Your task to perform on an android device: What's the weather today? Image 0: 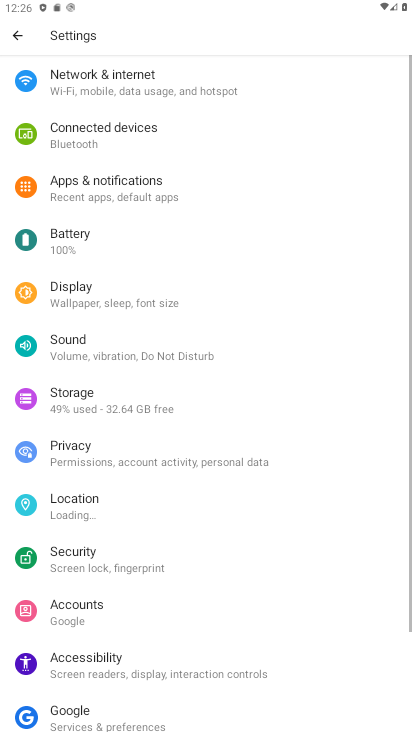
Step 0: press home button
Your task to perform on an android device: What's the weather today? Image 1: 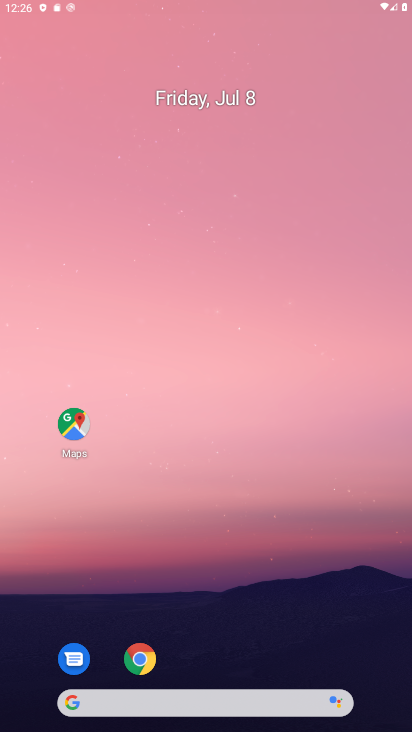
Step 1: drag from (256, 498) to (246, 173)
Your task to perform on an android device: What's the weather today? Image 2: 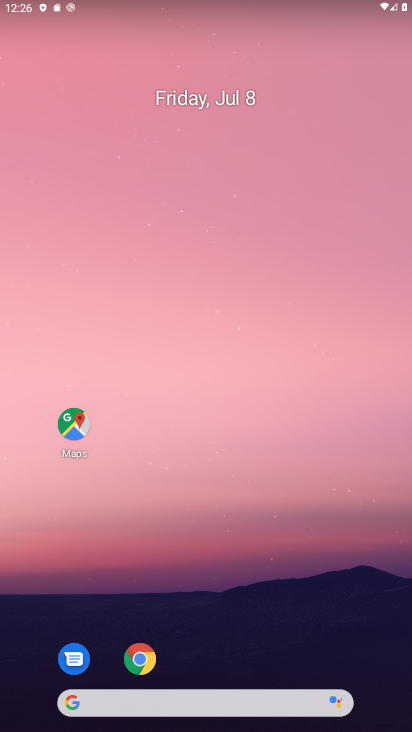
Step 2: drag from (241, 577) to (327, 212)
Your task to perform on an android device: What's the weather today? Image 3: 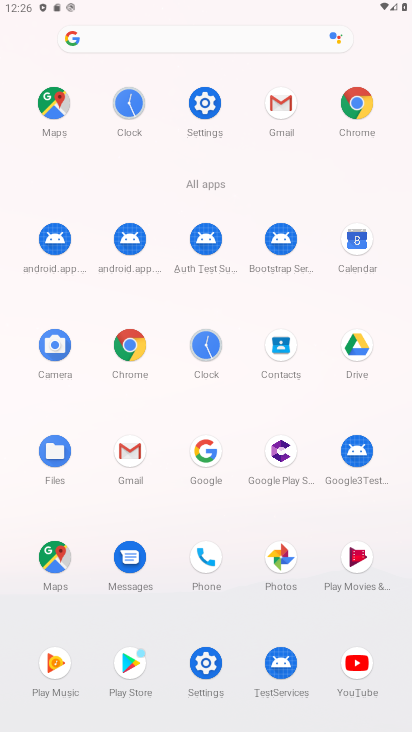
Step 3: click (375, 125)
Your task to perform on an android device: What's the weather today? Image 4: 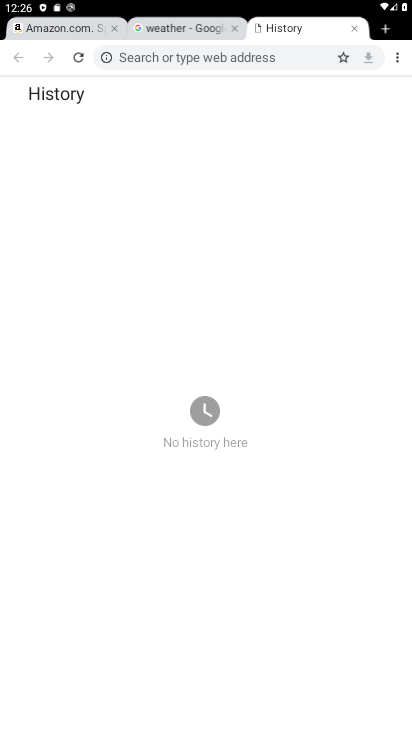
Step 4: click (184, 29)
Your task to perform on an android device: What's the weather today? Image 5: 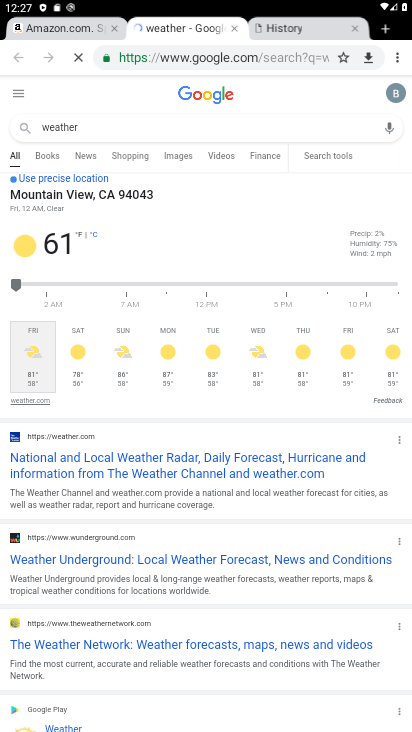
Step 5: click (29, 359)
Your task to perform on an android device: What's the weather today? Image 6: 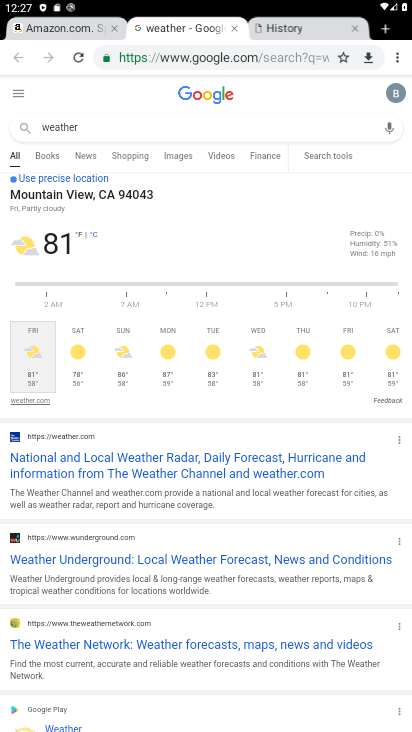
Step 6: click (99, 336)
Your task to perform on an android device: What's the weather today? Image 7: 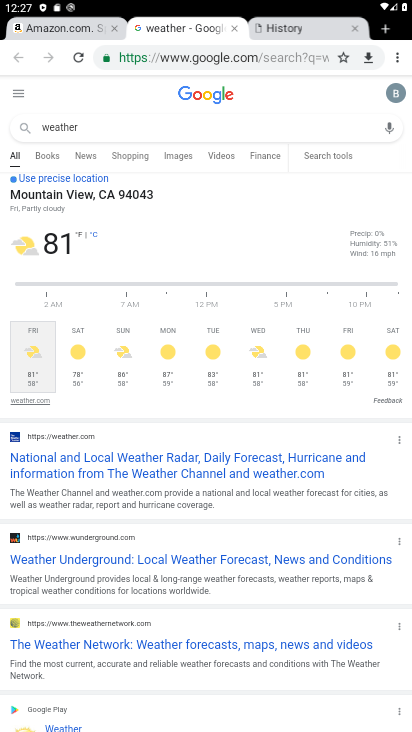
Step 7: task complete